Your task to perform on an android device: Go to calendar. Show me events next week Image 0: 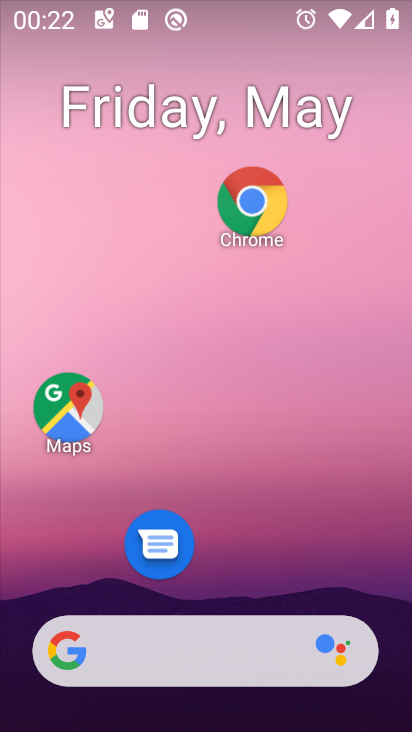
Step 0: press home button
Your task to perform on an android device: Go to calendar. Show me events next week Image 1: 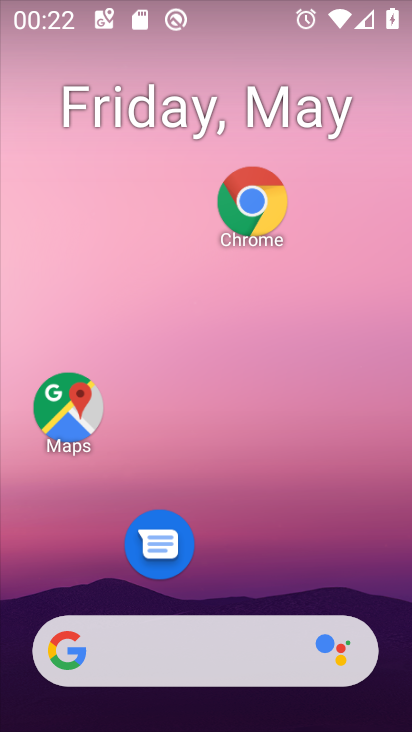
Step 1: drag from (213, 579) to (205, 34)
Your task to perform on an android device: Go to calendar. Show me events next week Image 2: 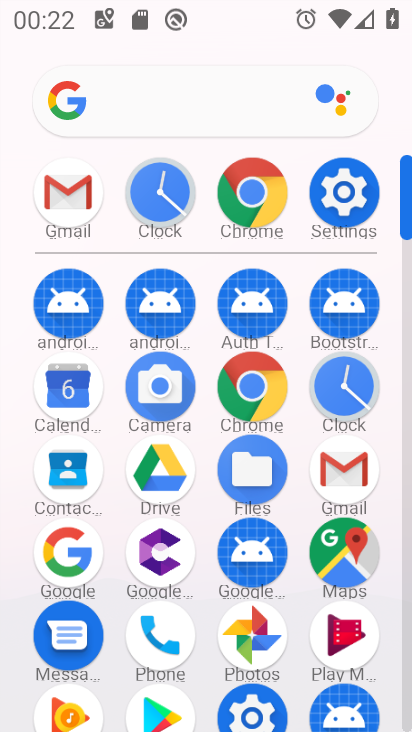
Step 2: click (66, 381)
Your task to perform on an android device: Go to calendar. Show me events next week Image 3: 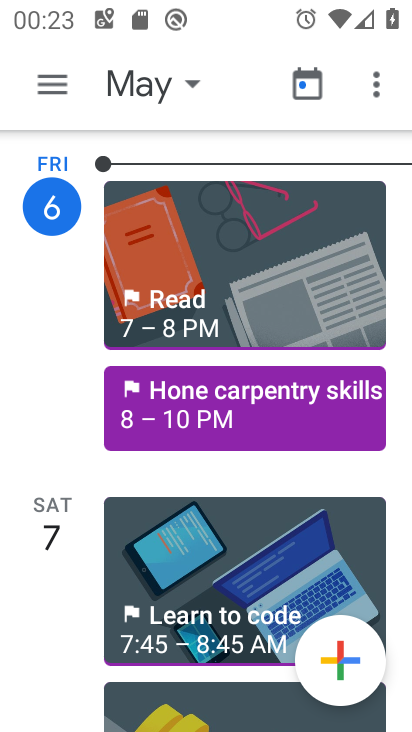
Step 3: task complete